Your task to perform on an android device: add a label to a message in the gmail app Image 0: 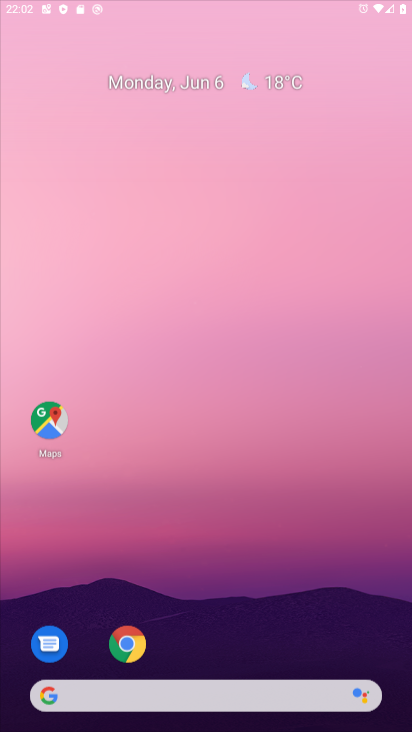
Step 0: drag from (276, 326) to (258, 125)
Your task to perform on an android device: add a label to a message in the gmail app Image 1: 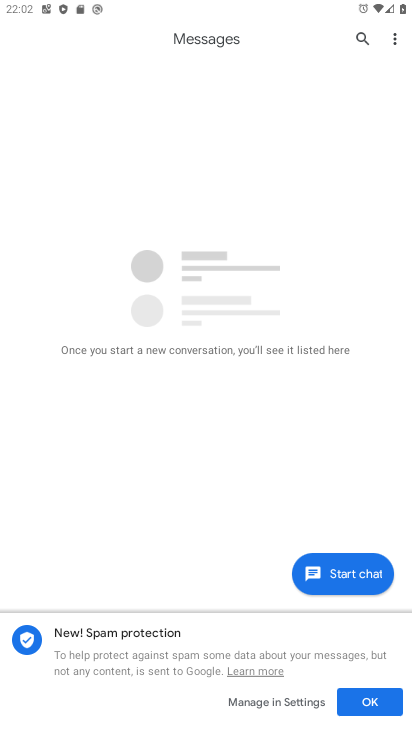
Step 1: press home button
Your task to perform on an android device: add a label to a message in the gmail app Image 2: 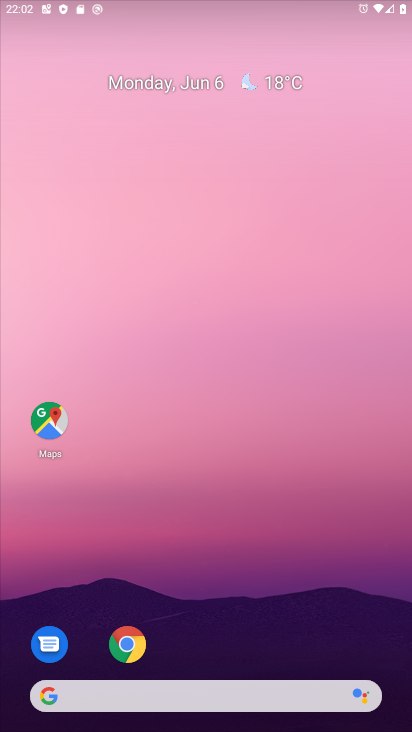
Step 2: drag from (322, 592) to (270, 195)
Your task to perform on an android device: add a label to a message in the gmail app Image 3: 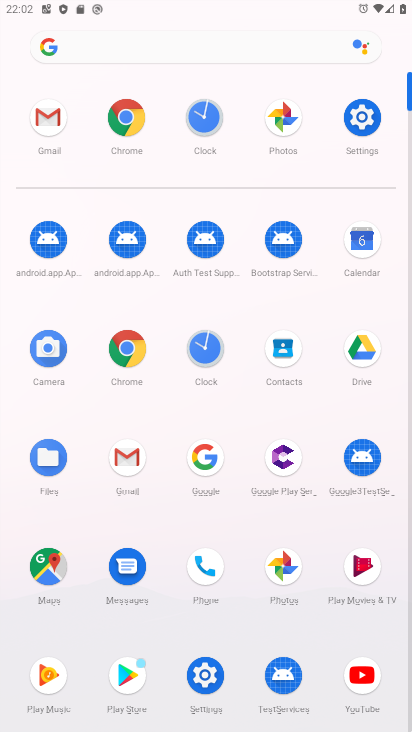
Step 3: click (131, 459)
Your task to perform on an android device: add a label to a message in the gmail app Image 4: 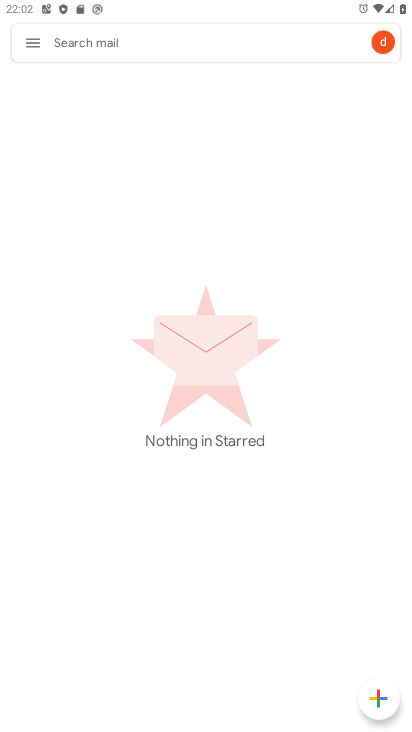
Step 4: click (31, 39)
Your task to perform on an android device: add a label to a message in the gmail app Image 5: 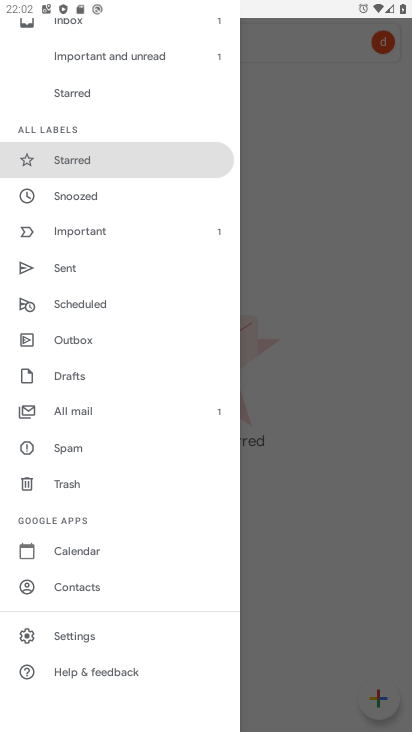
Step 5: drag from (114, 185) to (151, 452)
Your task to perform on an android device: add a label to a message in the gmail app Image 6: 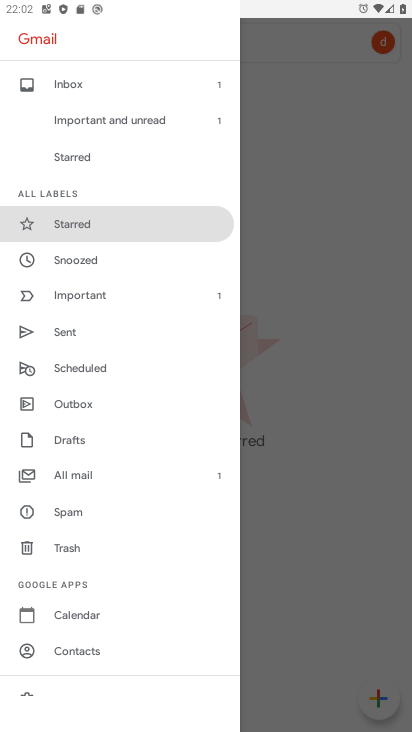
Step 6: click (107, 481)
Your task to perform on an android device: add a label to a message in the gmail app Image 7: 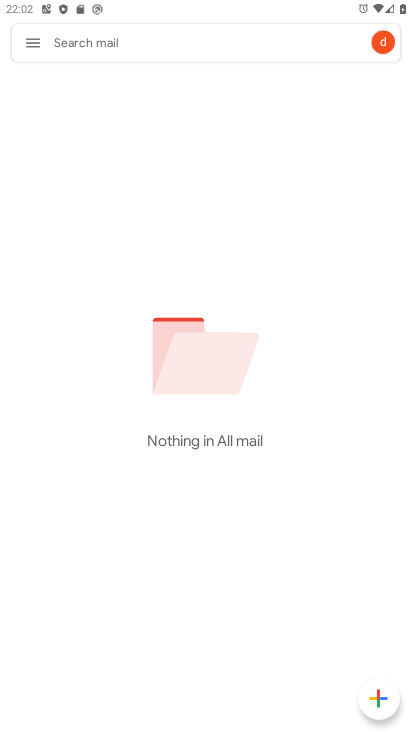
Step 7: task complete